Your task to perform on an android device: set the timer Image 0: 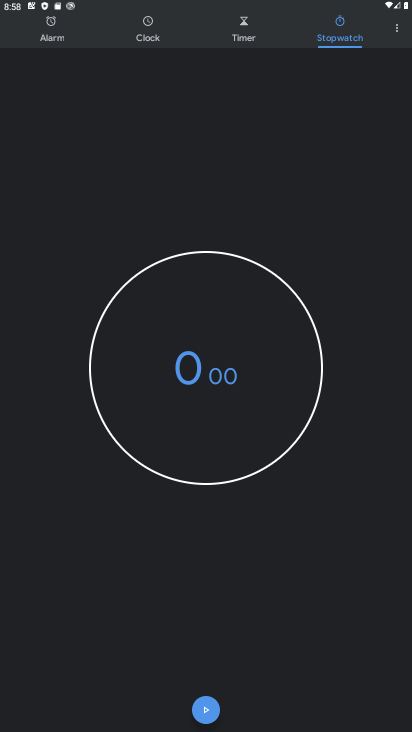
Step 0: click (248, 35)
Your task to perform on an android device: set the timer Image 1: 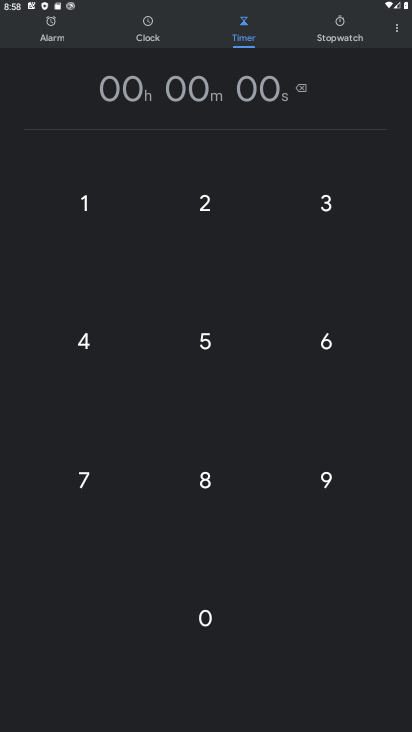
Step 1: click (323, 357)
Your task to perform on an android device: set the timer Image 2: 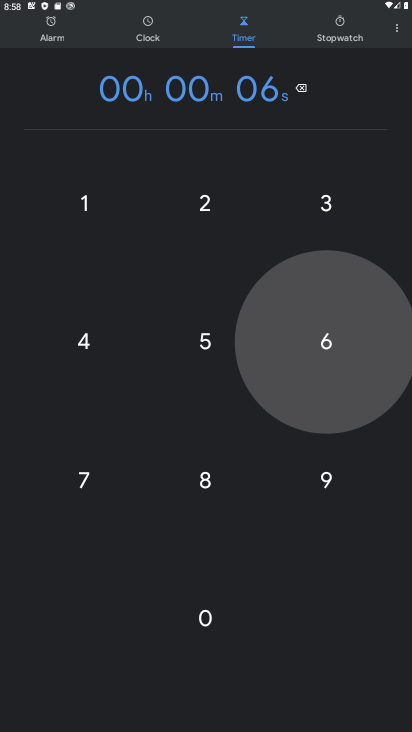
Step 2: click (323, 357)
Your task to perform on an android device: set the timer Image 3: 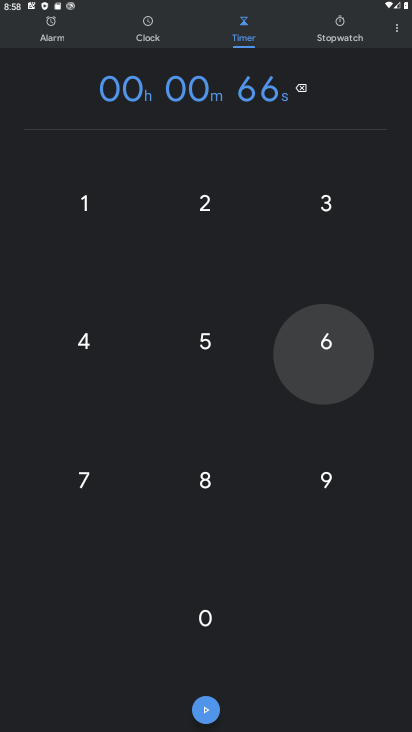
Step 3: click (323, 357)
Your task to perform on an android device: set the timer Image 4: 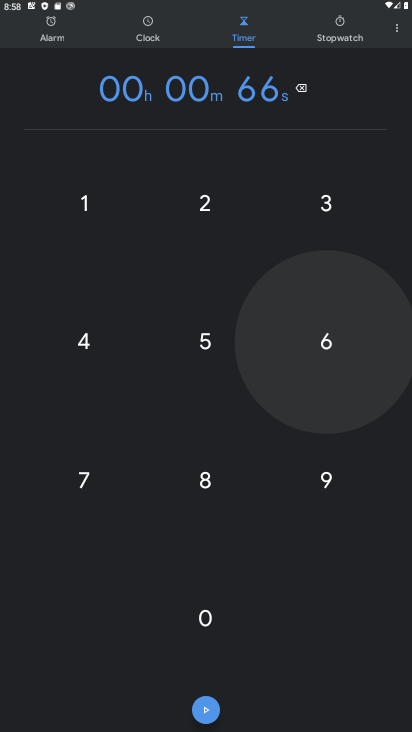
Step 4: click (323, 357)
Your task to perform on an android device: set the timer Image 5: 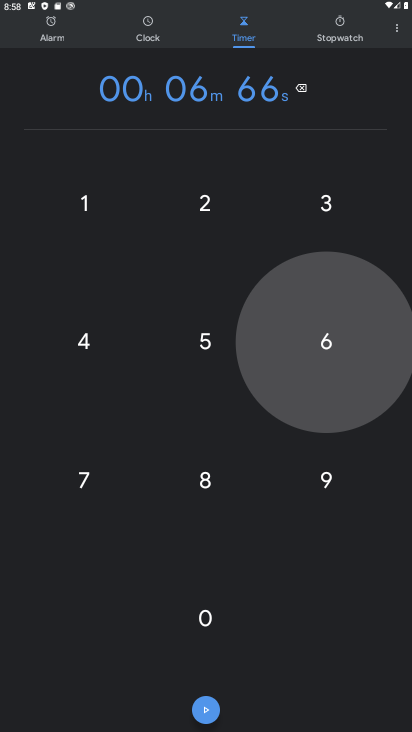
Step 5: click (323, 357)
Your task to perform on an android device: set the timer Image 6: 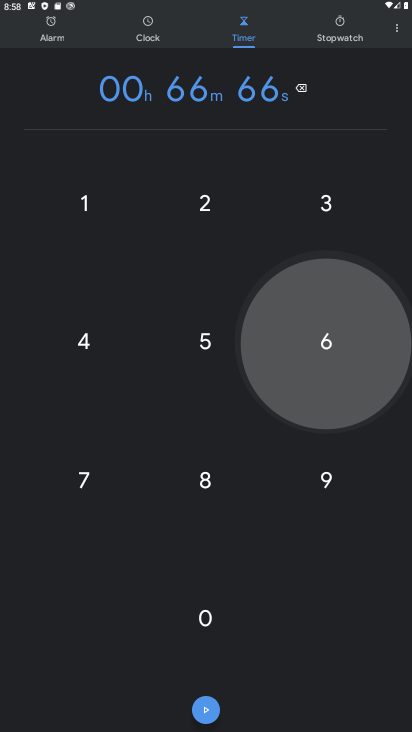
Step 6: click (323, 357)
Your task to perform on an android device: set the timer Image 7: 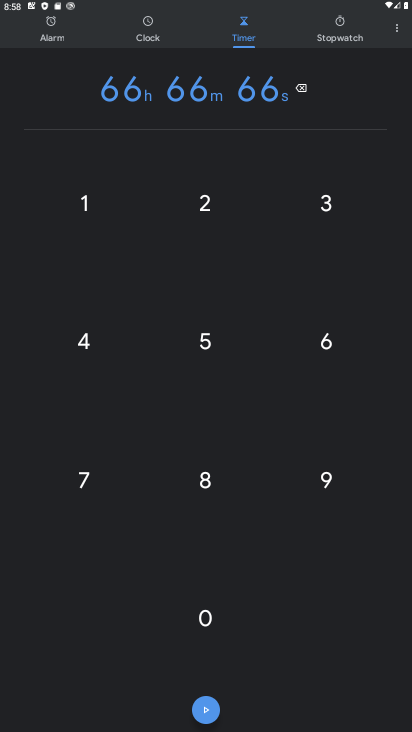
Step 7: click (203, 704)
Your task to perform on an android device: set the timer Image 8: 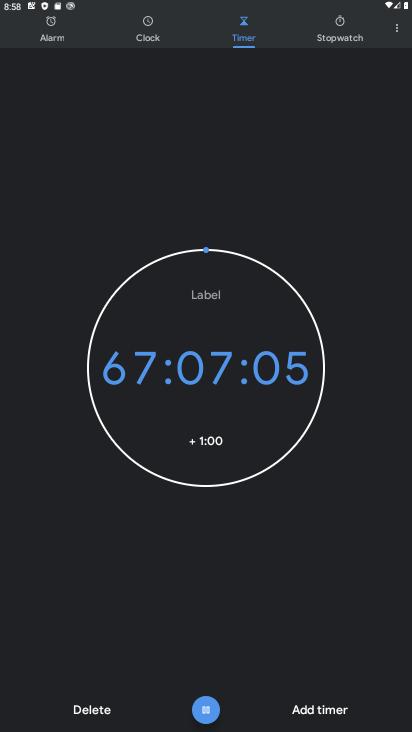
Step 8: task complete